Your task to perform on an android device: add a label to a message in the gmail app Image 0: 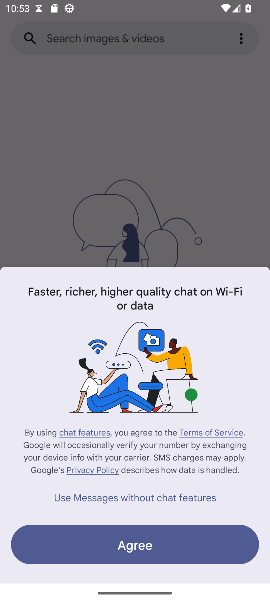
Step 0: press home button
Your task to perform on an android device: add a label to a message in the gmail app Image 1: 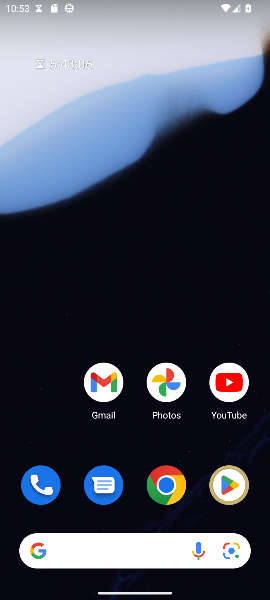
Step 1: drag from (127, 482) to (146, 56)
Your task to perform on an android device: add a label to a message in the gmail app Image 2: 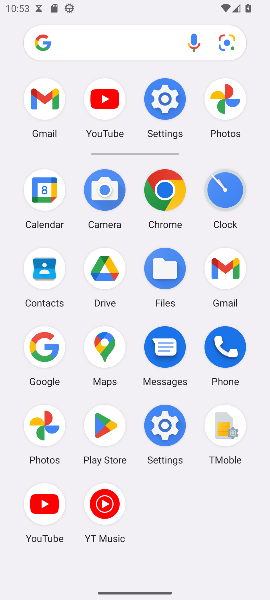
Step 2: click (38, 97)
Your task to perform on an android device: add a label to a message in the gmail app Image 3: 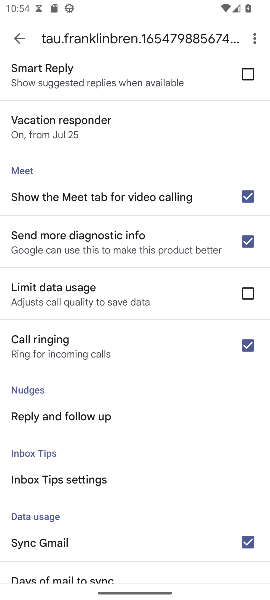
Step 3: click (9, 32)
Your task to perform on an android device: add a label to a message in the gmail app Image 4: 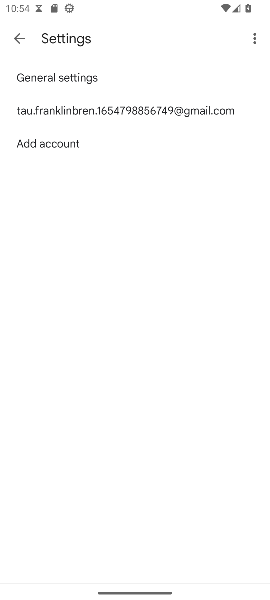
Step 4: click (24, 39)
Your task to perform on an android device: add a label to a message in the gmail app Image 5: 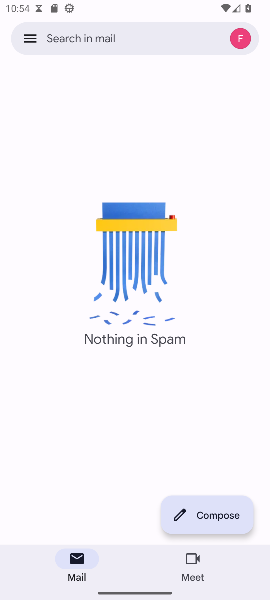
Step 5: click (33, 30)
Your task to perform on an android device: add a label to a message in the gmail app Image 6: 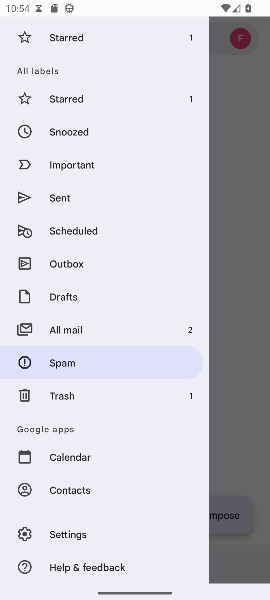
Step 6: drag from (108, 54) to (114, 335)
Your task to perform on an android device: add a label to a message in the gmail app Image 7: 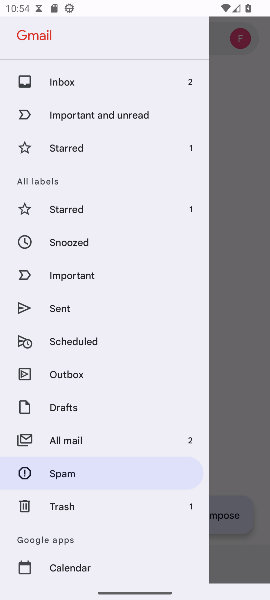
Step 7: click (86, 77)
Your task to perform on an android device: add a label to a message in the gmail app Image 8: 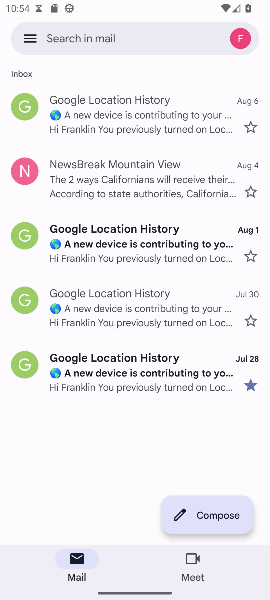
Step 8: click (26, 231)
Your task to perform on an android device: add a label to a message in the gmail app Image 9: 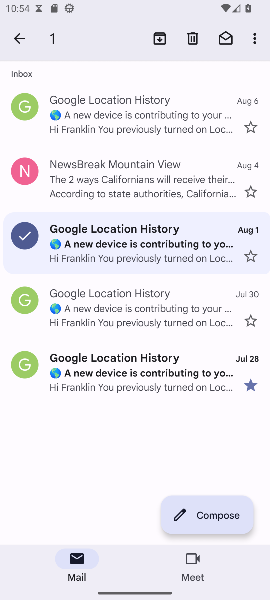
Step 9: click (253, 33)
Your task to perform on an android device: add a label to a message in the gmail app Image 10: 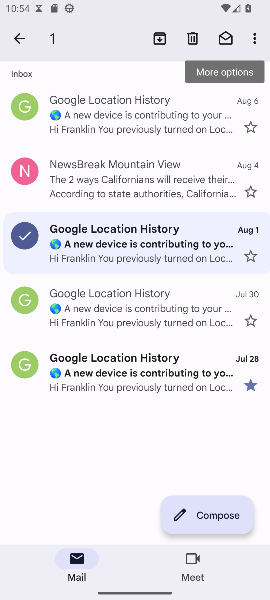
Step 10: click (252, 41)
Your task to perform on an android device: add a label to a message in the gmail app Image 11: 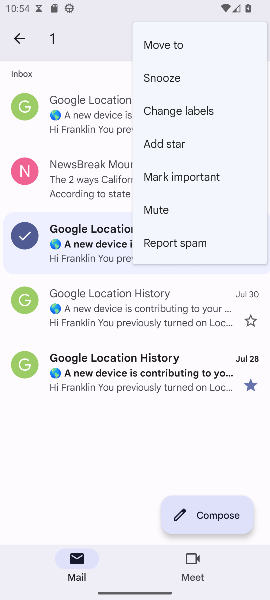
Step 11: task complete